Your task to perform on an android device: Show me popular videos on Youtube Image 0: 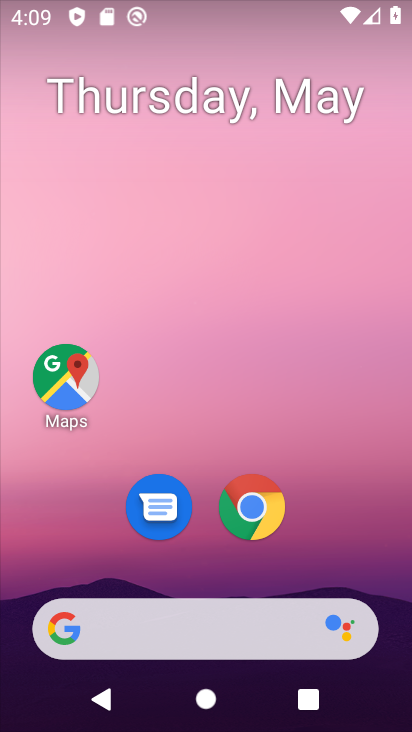
Step 0: drag from (366, 574) to (75, 52)
Your task to perform on an android device: Show me popular videos on Youtube Image 1: 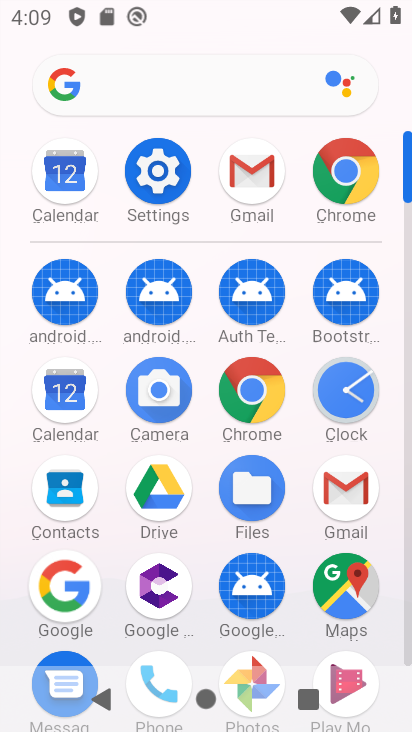
Step 1: drag from (281, 516) to (243, 104)
Your task to perform on an android device: Show me popular videos on Youtube Image 2: 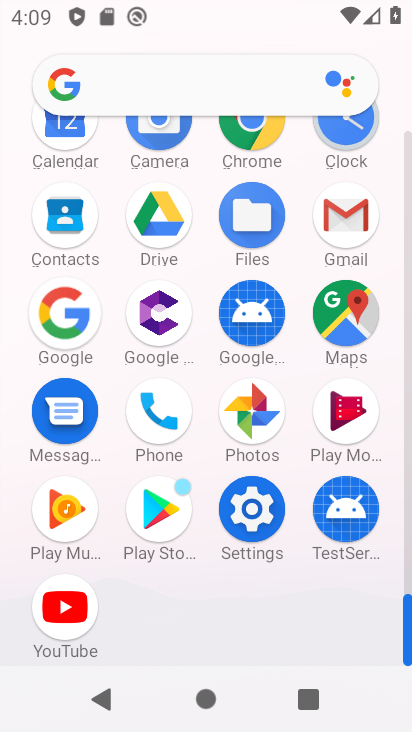
Step 2: drag from (302, 489) to (230, 89)
Your task to perform on an android device: Show me popular videos on Youtube Image 3: 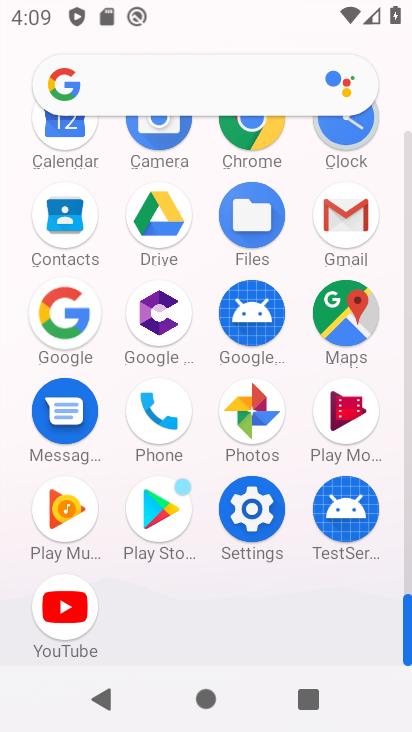
Step 3: click (56, 603)
Your task to perform on an android device: Show me popular videos on Youtube Image 4: 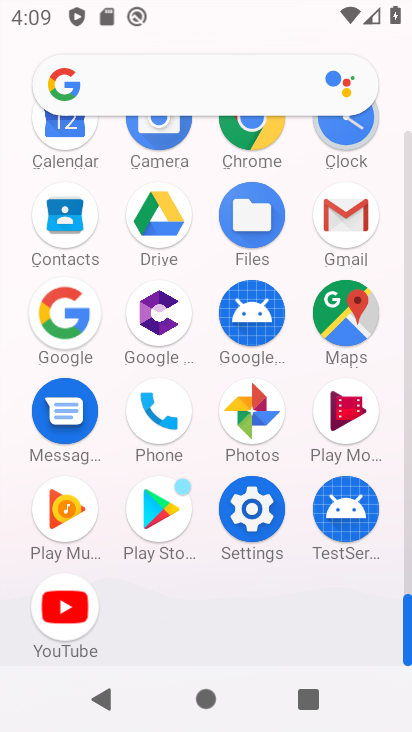
Step 4: click (57, 603)
Your task to perform on an android device: Show me popular videos on Youtube Image 5: 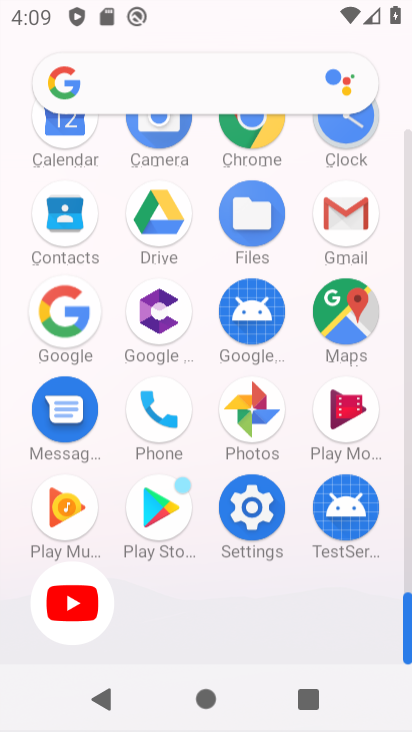
Step 5: click (60, 609)
Your task to perform on an android device: Show me popular videos on Youtube Image 6: 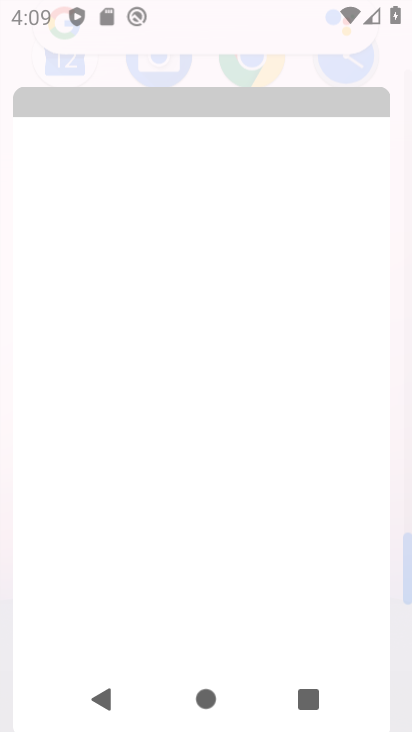
Step 6: click (59, 610)
Your task to perform on an android device: Show me popular videos on Youtube Image 7: 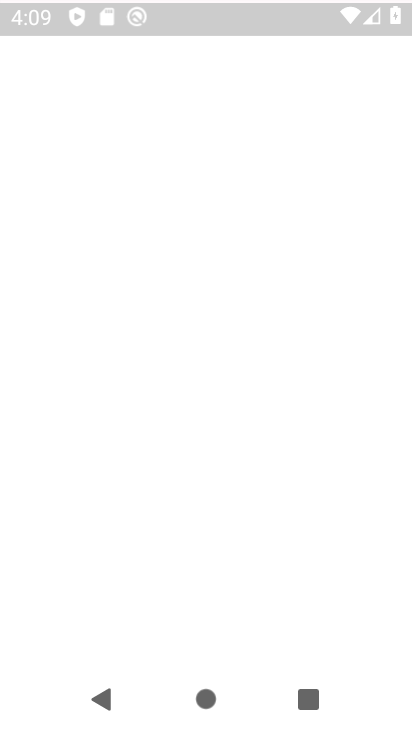
Step 7: click (59, 609)
Your task to perform on an android device: Show me popular videos on Youtube Image 8: 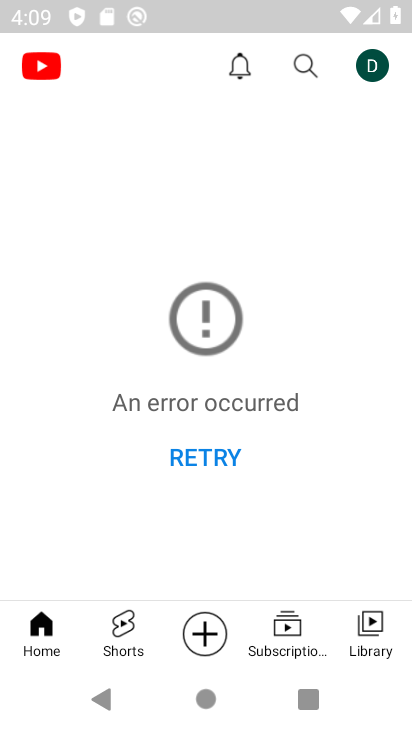
Step 8: task complete